Your task to perform on an android device: add a label to a message in the gmail app Image 0: 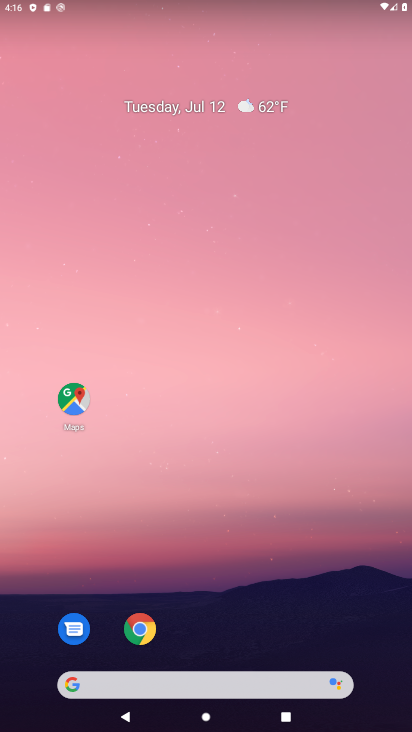
Step 0: drag from (196, 661) to (160, 82)
Your task to perform on an android device: add a label to a message in the gmail app Image 1: 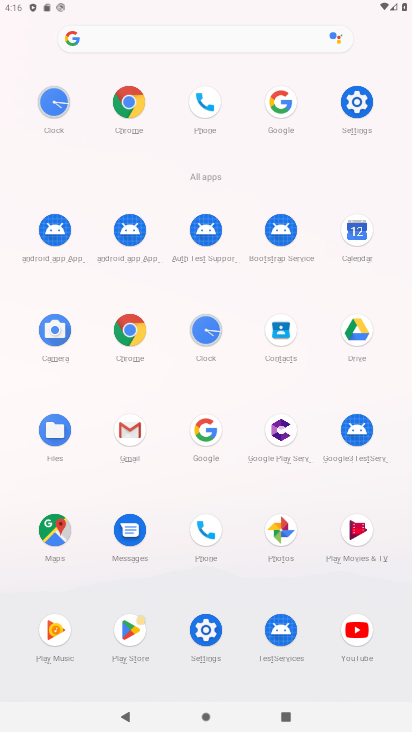
Step 1: click (126, 442)
Your task to perform on an android device: add a label to a message in the gmail app Image 2: 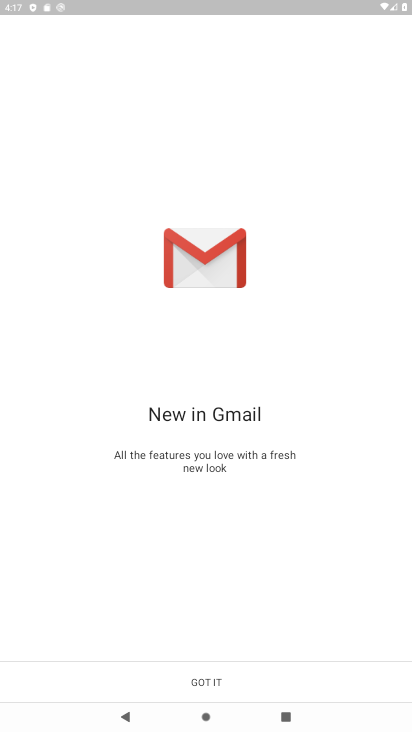
Step 2: click (240, 688)
Your task to perform on an android device: add a label to a message in the gmail app Image 3: 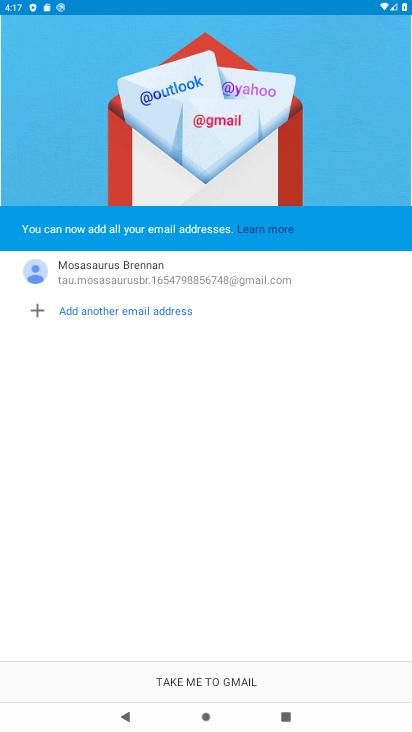
Step 3: click (202, 679)
Your task to perform on an android device: add a label to a message in the gmail app Image 4: 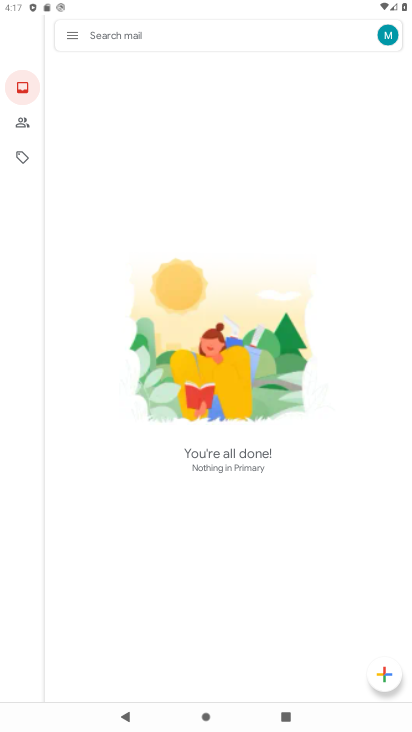
Step 4: task complete